Your task to perform on an android device: turn on airplane mode Image 0: 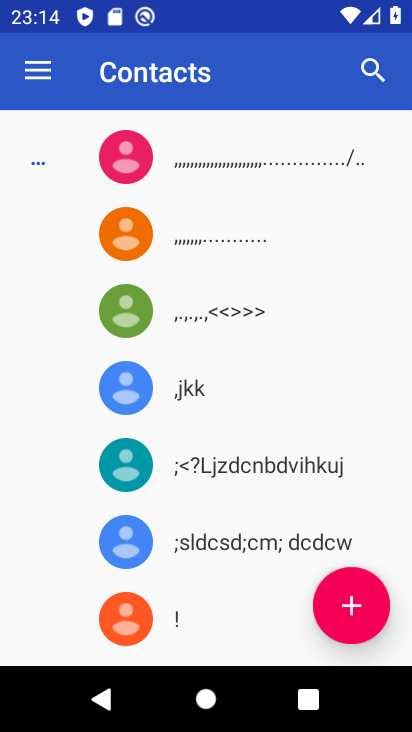
Step 0: press home button
Your task to perform on an android device: turn on airplane mode Image 1: 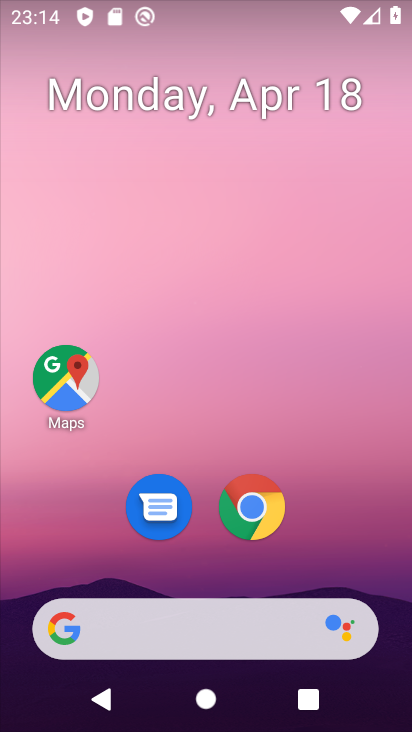
Step 1: drag from (356, 487) to (409, 53)
Your task to perform on an android device: turn on airplane mode Image 2: 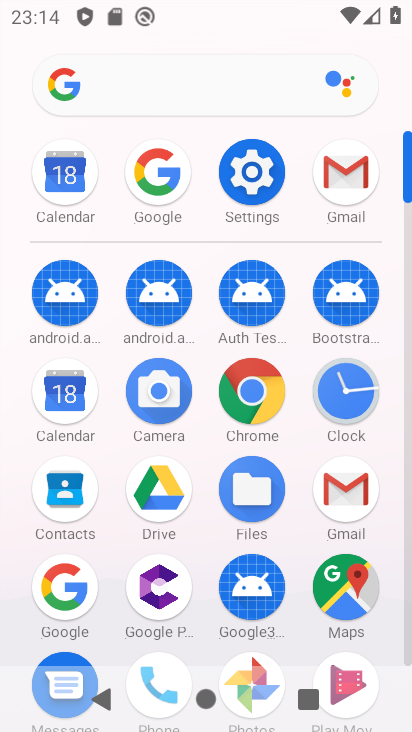
Step 2: click (248, 169)
Your task to perform on an android device: turn on airplane mode Image 3: 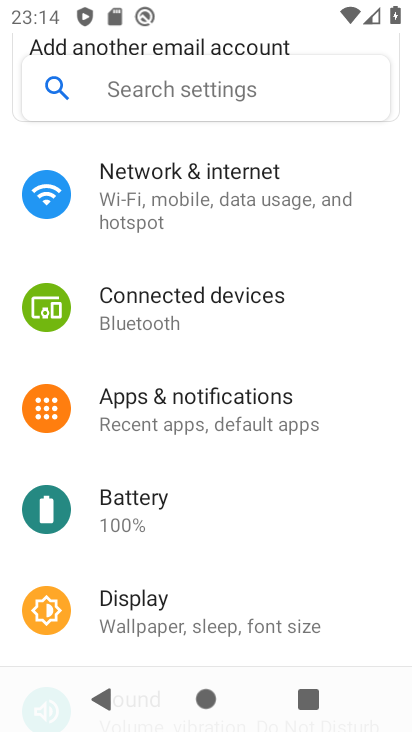
Step 3: click (251, 197)
Your task to perform on an android device: turn on airplane mode Image 4: 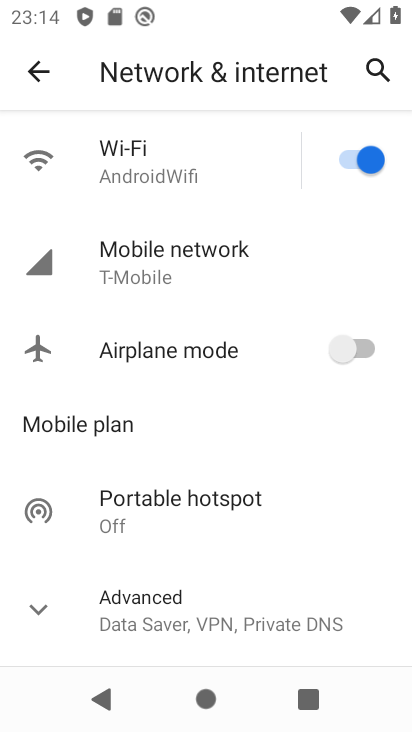
Step 4: click (352, 340)
Your task to perform on an android device: turn on airplane mode Image 5: 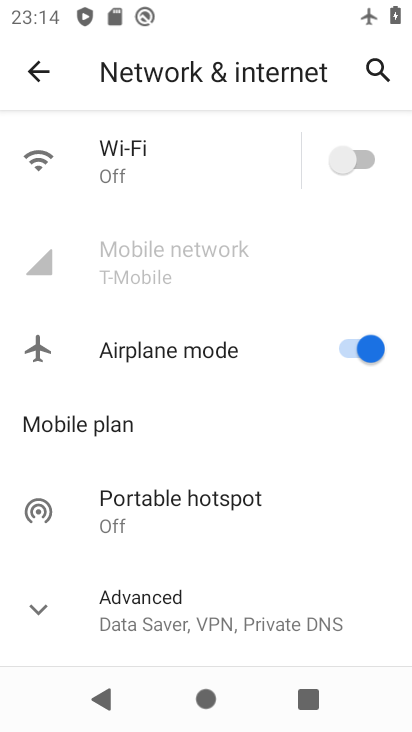
Step 5: task complete